Your task to perform on an android device: uninstall "Clock" Image 0: 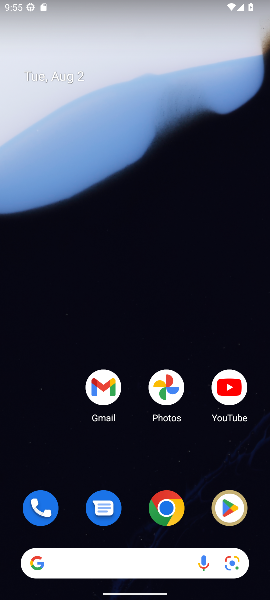
Step 0: drag from (134, 493) to (146, 135)
Your task to perform on an android device: uninstall "Clock" Image 1: 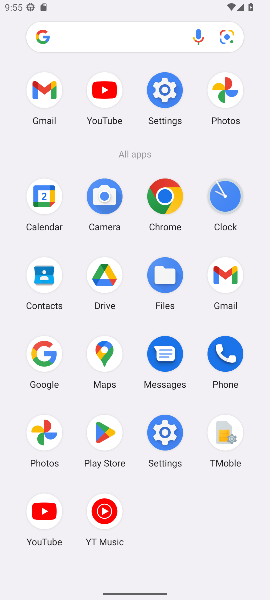
Step 1: click (234, 192)
Your task to perform on an android device: uninstall "Clock" Image 2: 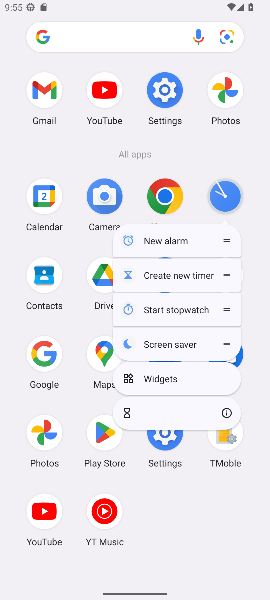
Step 2: click (221, 416)
Your task to perform on an android device: uninstall "Clock" Image 3: 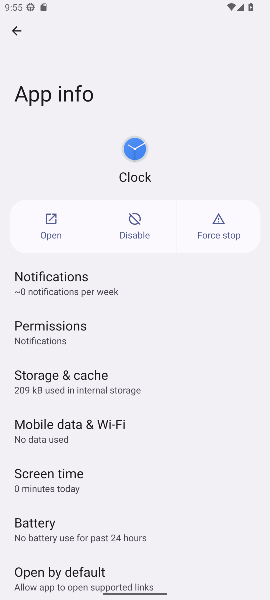
Step 3: task complete